Your task to perform on an android device: Open the Play Movies app and select the watchlist tab. Image 0: 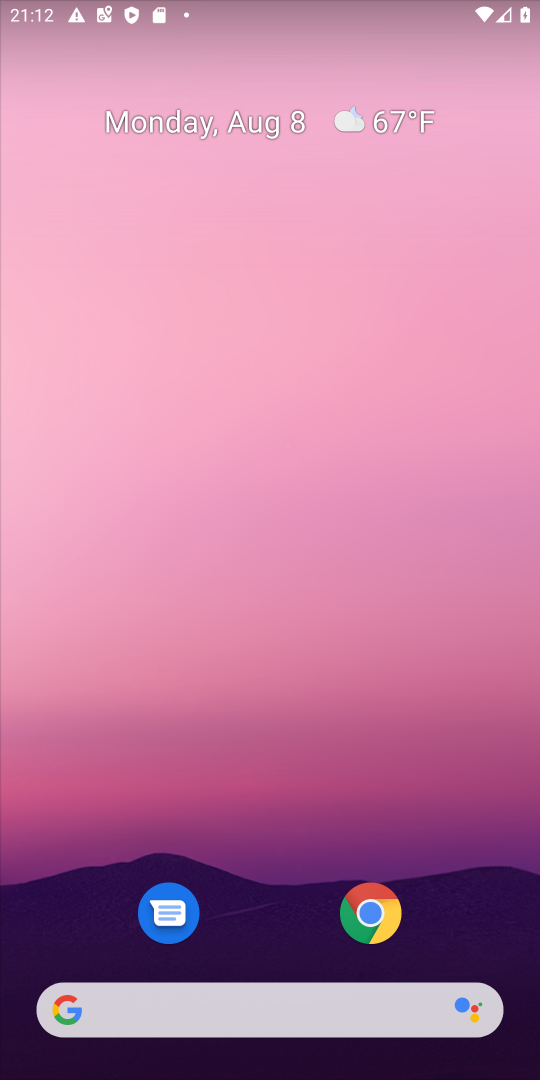
Step 0: drag from (216, 1024) to (341, 204)
Your task to perform on an android device: Open the Play Movies app and select the watchlist tab. Image 1: 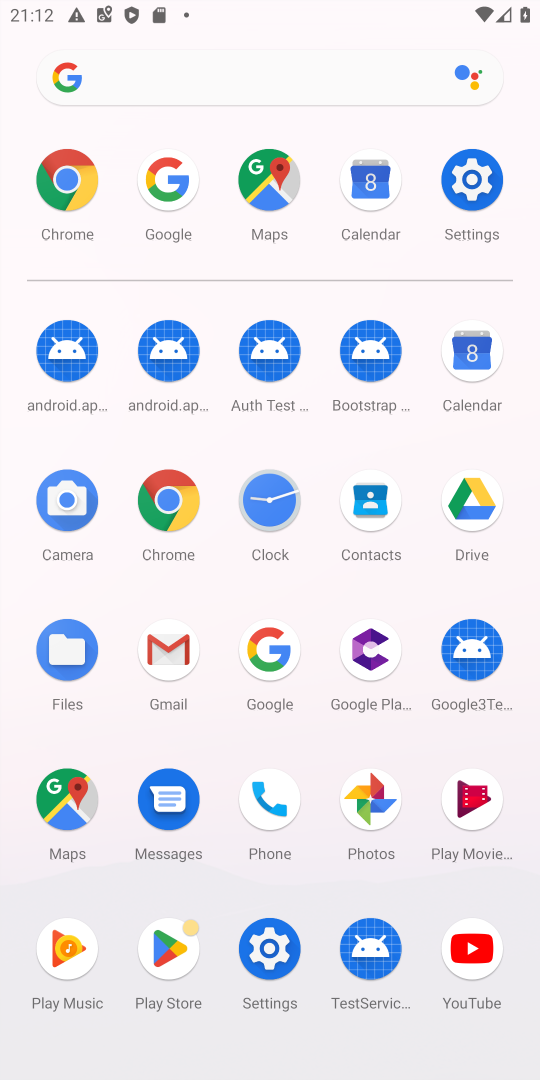
Step 1: click (470, 802)
Your task to perform on an android device: Open the Play Movies app and select the watchlist tab. Image 2: 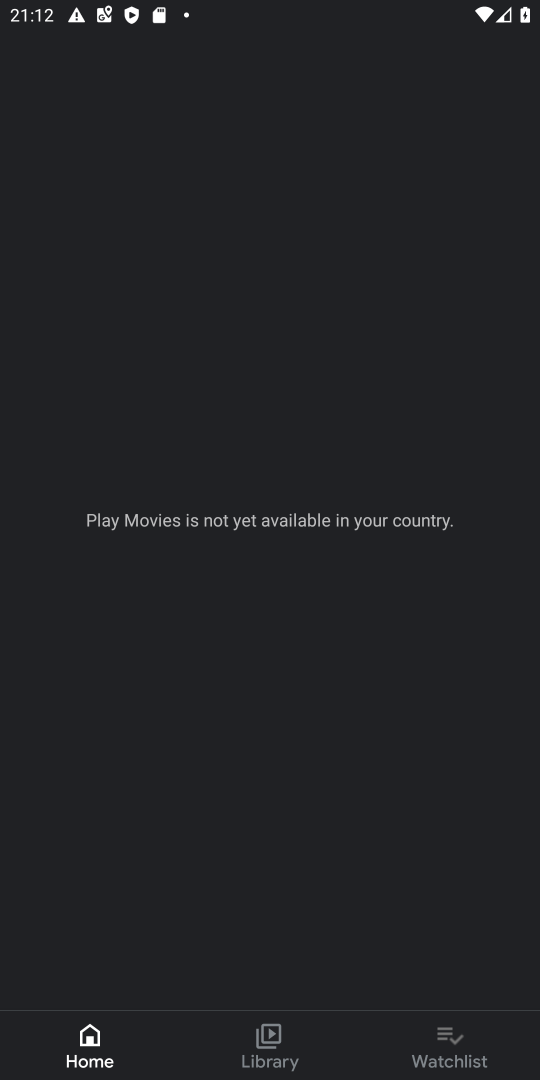
Step 2: click (450, 1030)
Your task to perform on an android device: Open the Play Movies app and select the watchlist tab. Image 3: 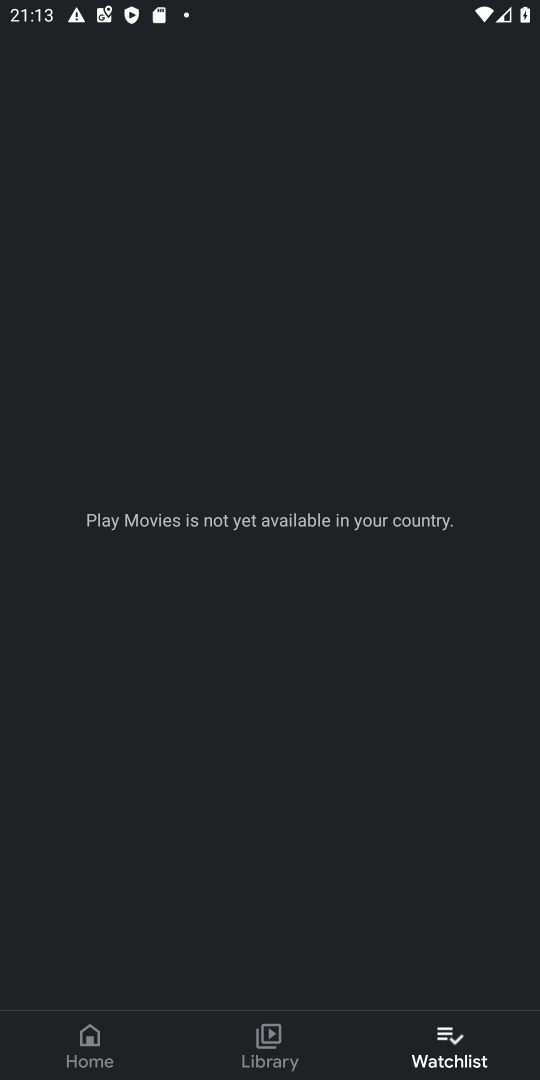
Step 3: task complete